Your task to perform on an android device: Search for the best-rated coffee table on Crate & Barrel Image 0: 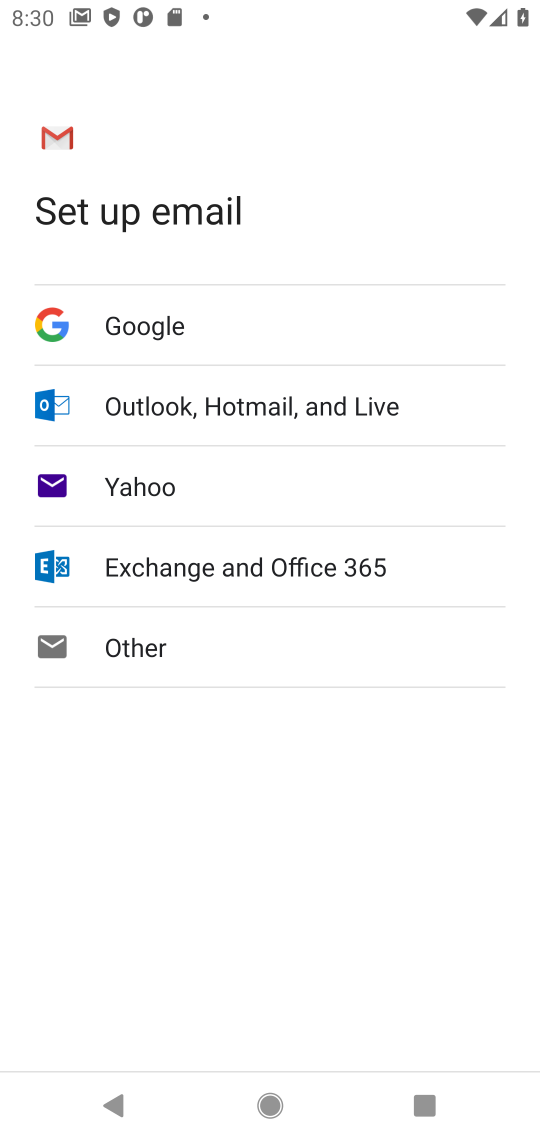
Step 0: press home button
Your task to perform on an android device: Search for the best-rated coffee table on Crate & Barrel Image 1: 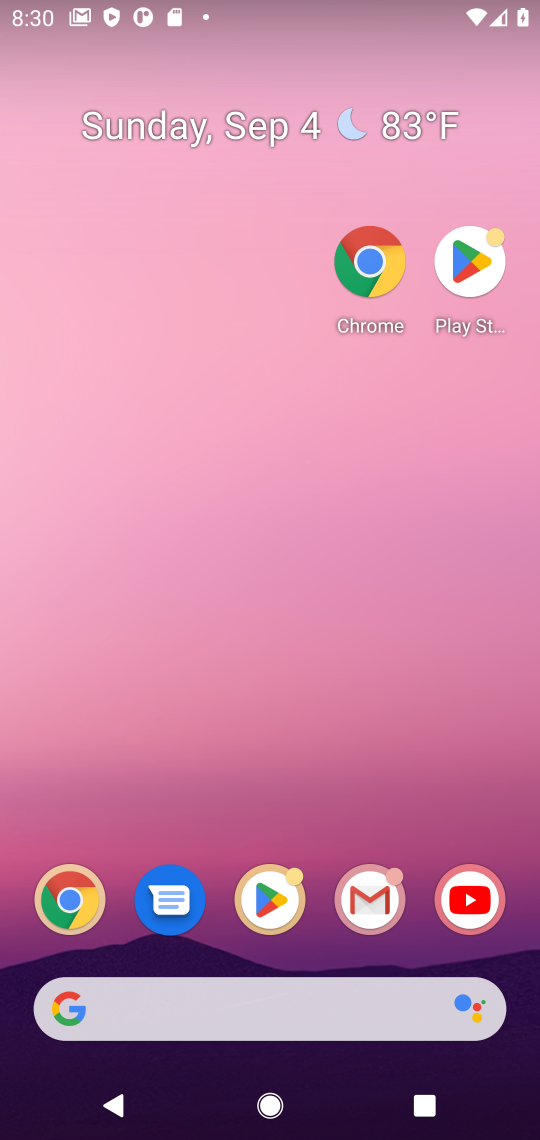
Step 1: click (91, 911)
Your task to perform on an android device: Search for the best-rated coffee table on Crate & Barrel Image 2: 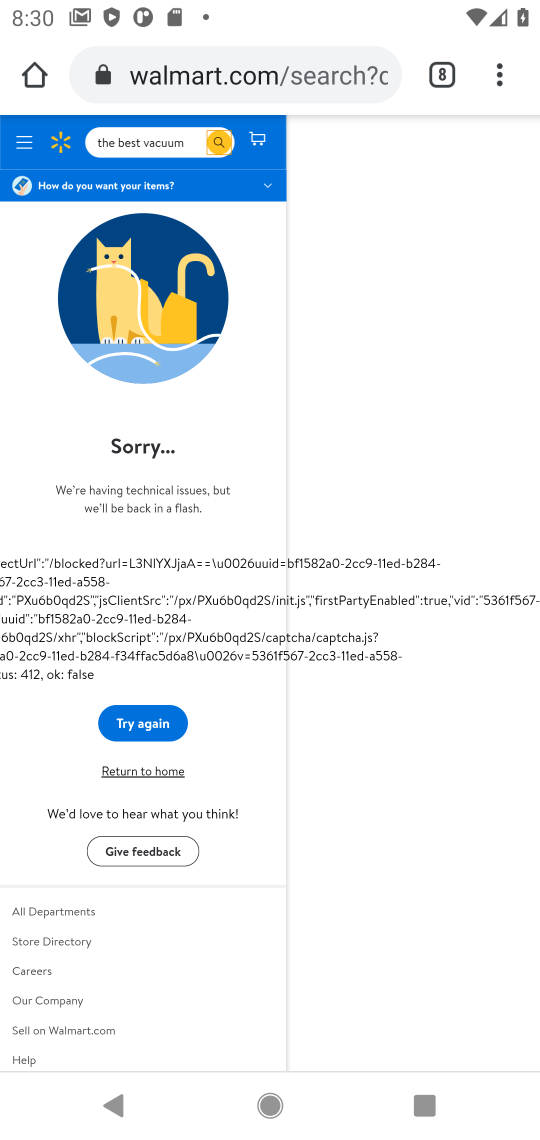
Step 2: click (440, 63)
Your task to perform on an android device: Search for the best-rated coffee table on Crate & Barrel Image 3: 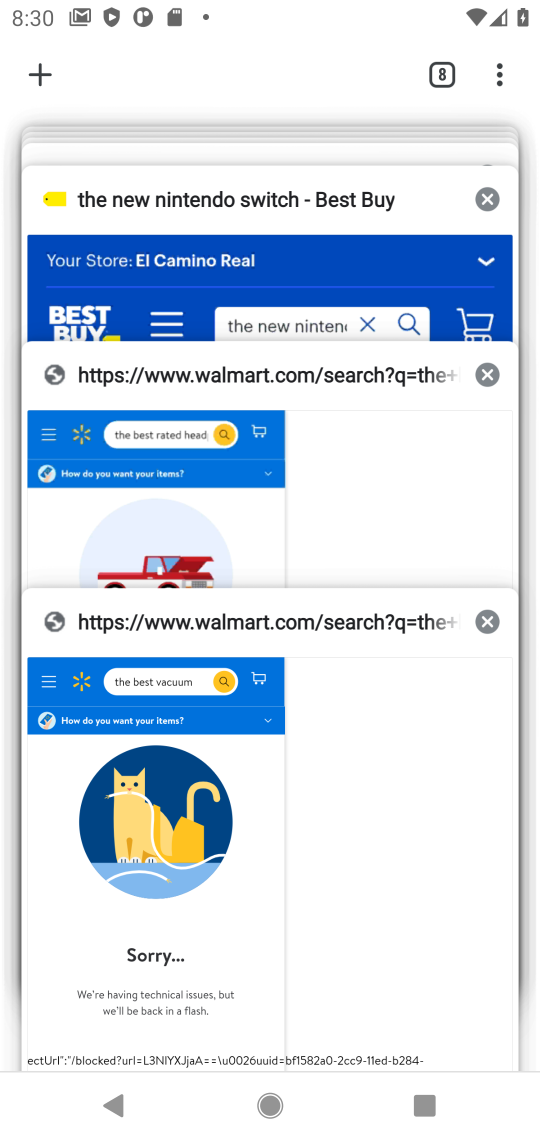
Step 3: click (42, 72)
Your task to perform on an android device: Search for the best-rated coffee table on Crate & Barrel Image 4: 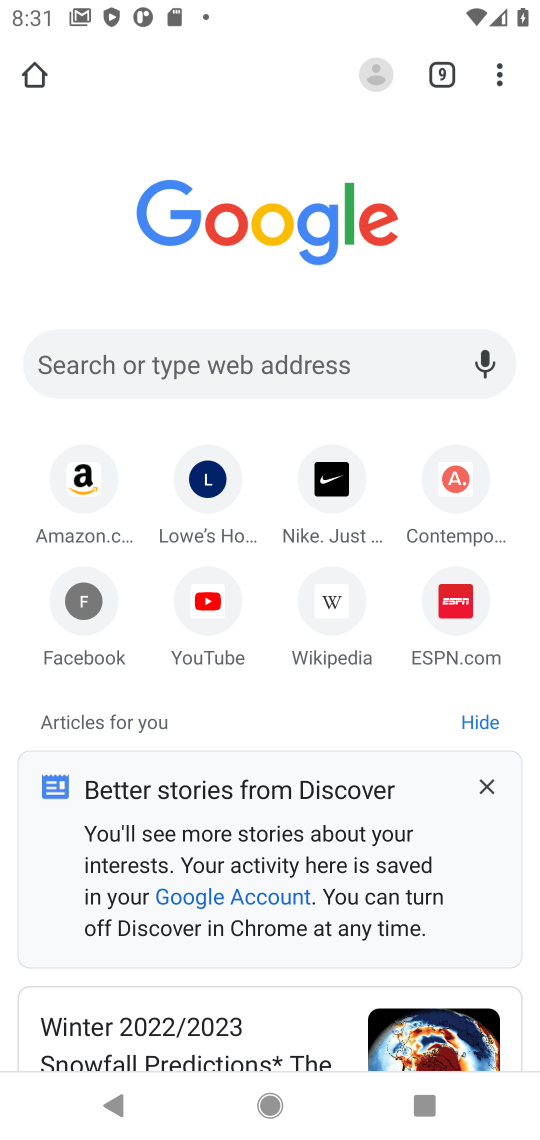
Step 4: click (354, 346)
Your task to perform on an android device: Search for the best-rated coffee table on Crate & Barrel Image 5: 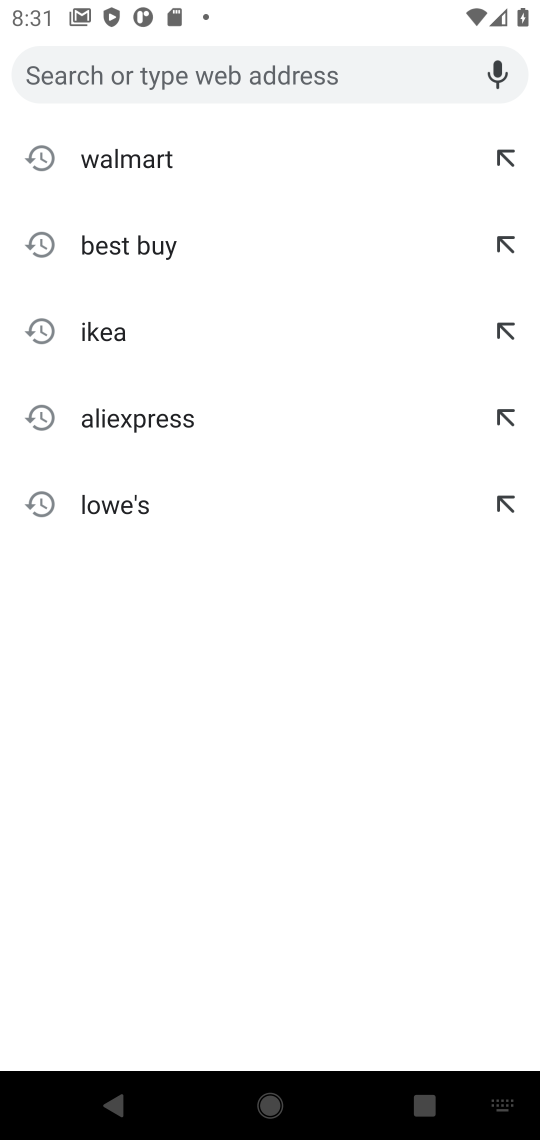
Step 5: type "Crate & Barre"
Your task to perform on an android device: Search for the best-rated coffee table on Crate & Barrel Image 6: 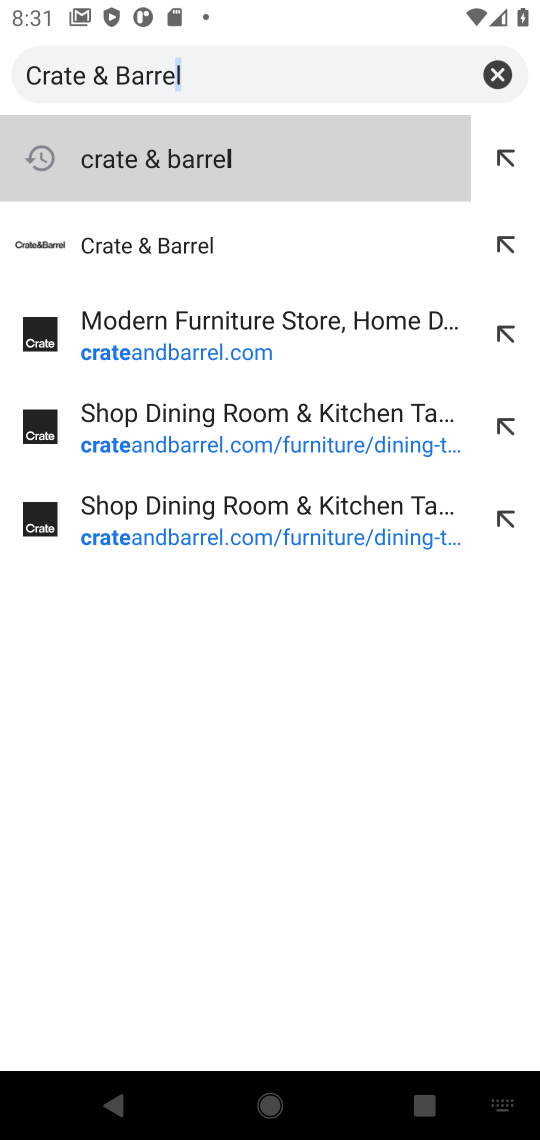
Step 6: click (257, 138)
Your task to perform on an android device: Search for the best-rated coffee table on Crate & Barrel Image 7: 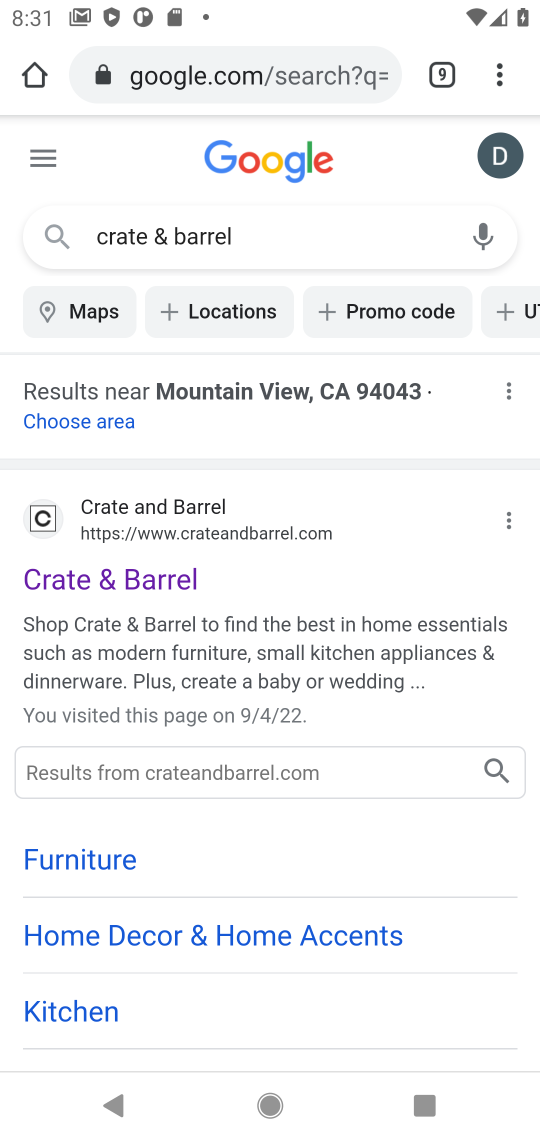
Step 7: click (123, 583)
Your task to perform on an android device: Search for the best-rated coffee table on Crate & Barrel Image 8: 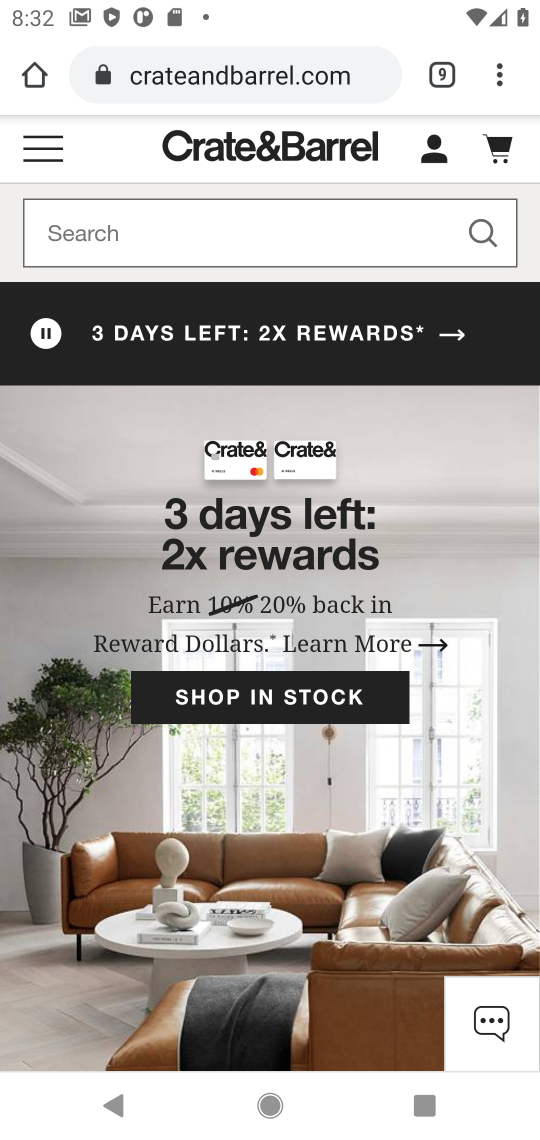
Step 8: click (236, 252)
Your task to perform on an android device: Search for the best-rated coffee table on Crate & Barrel Image 9: 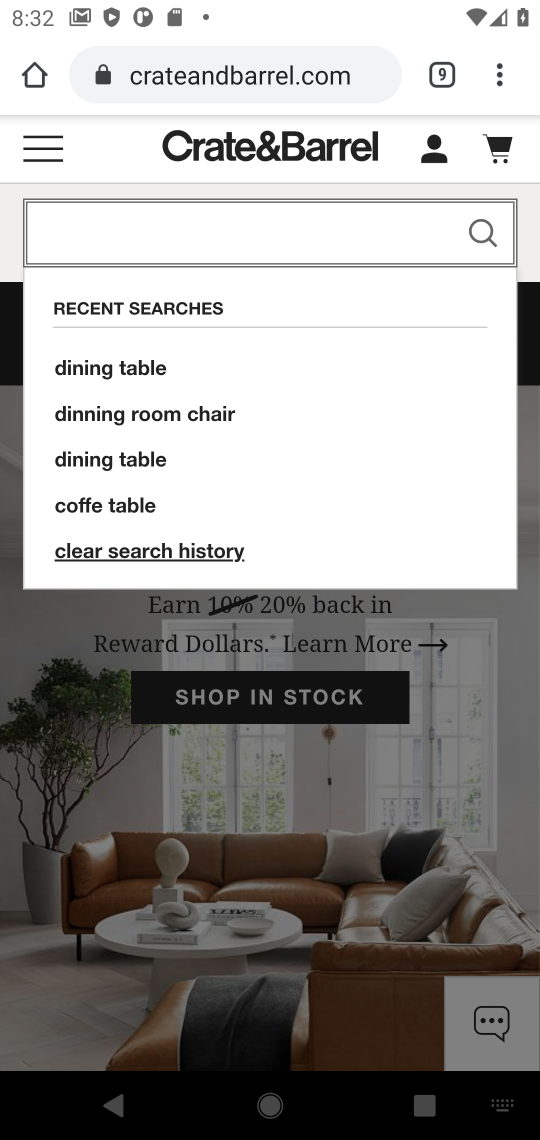
Step 9: click (115, 508)
Your task to perform on an android device: Search for the best-rated coffee table on Crate & Barrel Image 10: 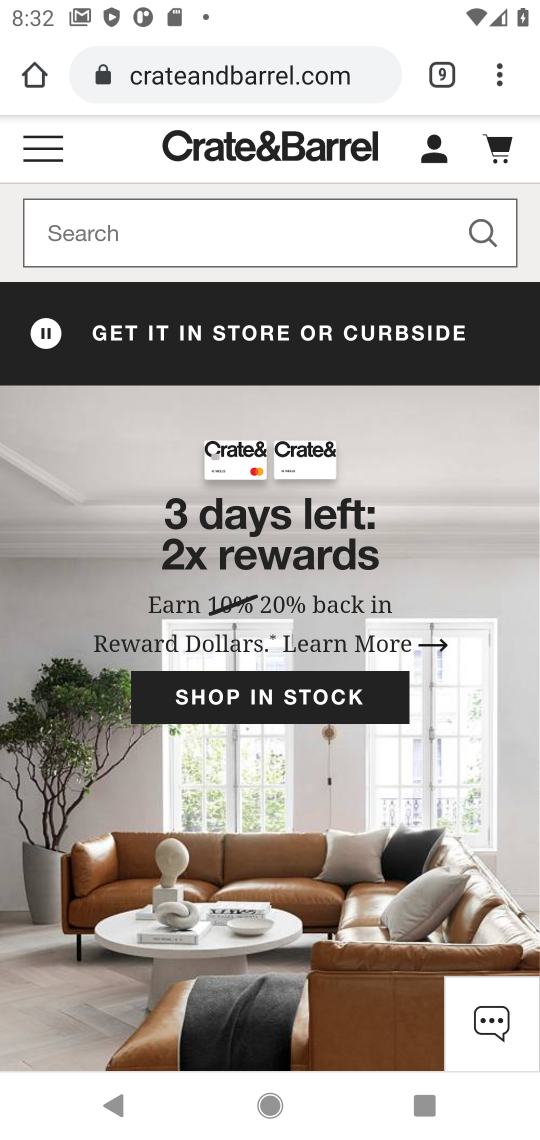
Step 10: click (278, 222)
Your task to perform on an android device: Search for the best-rated coffee table on Crate & Barrel Image 11: 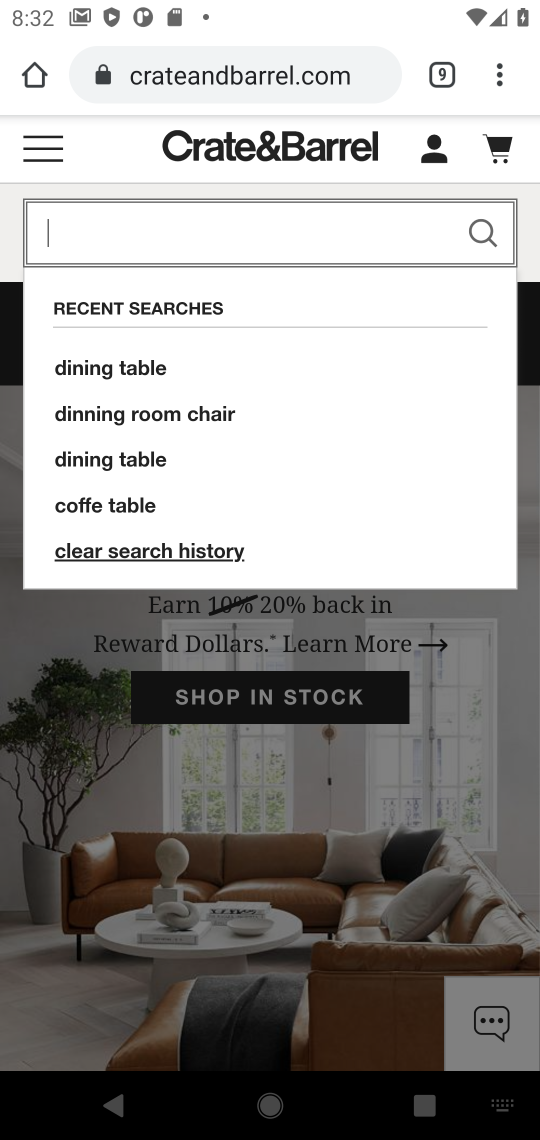
Step 11: click (104, 490)
Your task to perform on an android device: Search for the best-rated coffee table on Crate & Barrel Image 12: 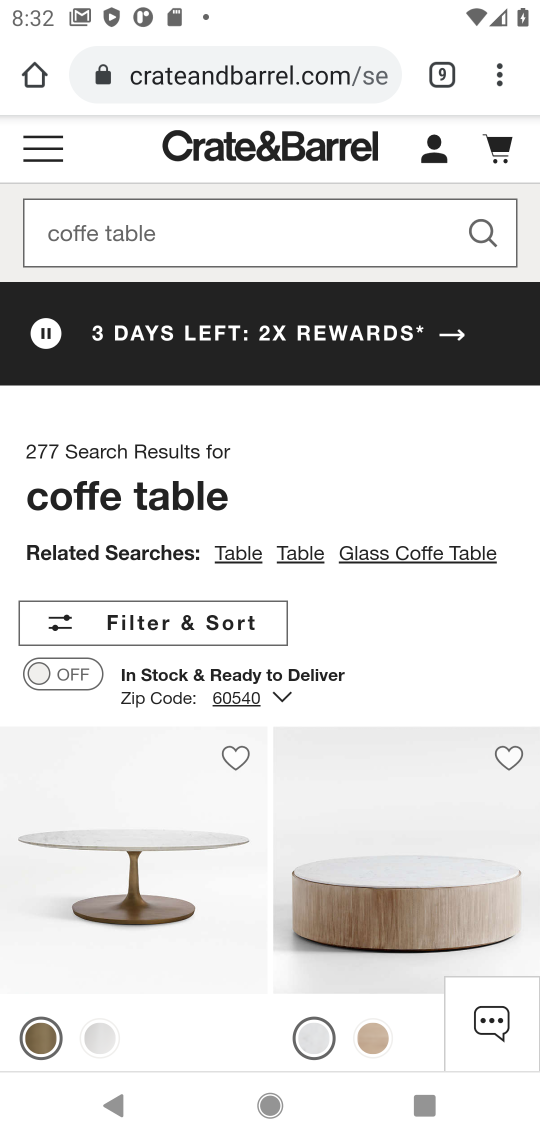
Step 12: drag from (358, 927) to (305, 551)
Your task to perform on an android device: Search for the best-rated coffee table on Crate & Barrel Image 13: 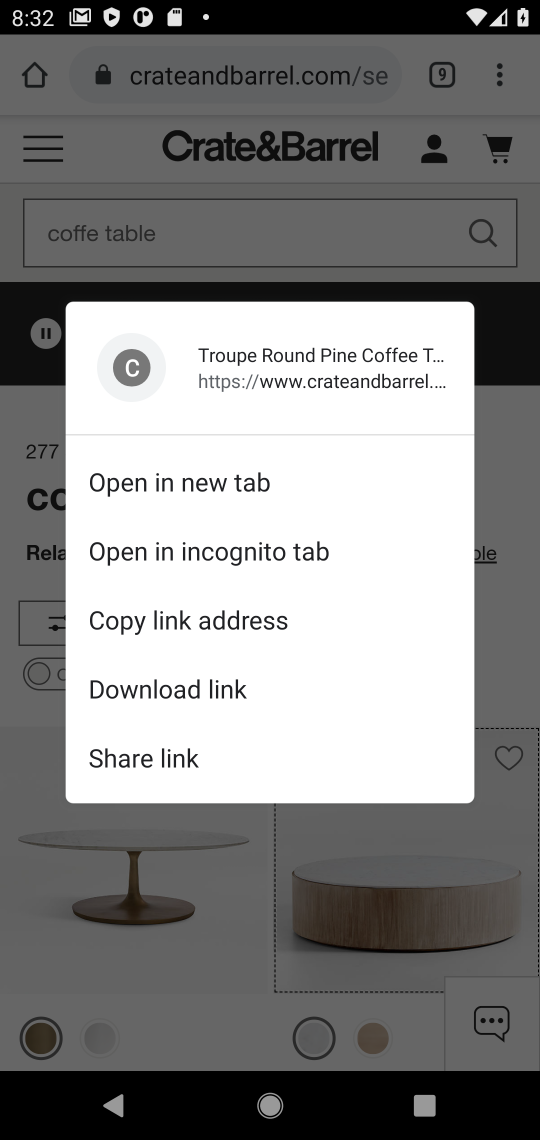
Step 13: click (512, 653)
Your task to perform on an android device: Search for the best-rated coffee table on Crate & Barrel Image 14: 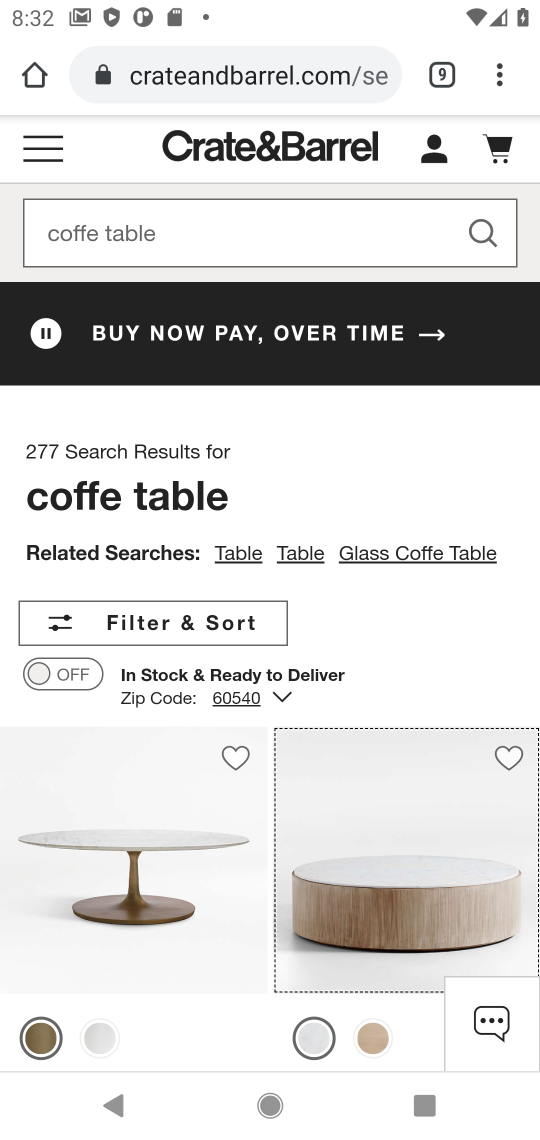
Step 14: click (48, 633)
Your task to perform on an android device: Search for the best-rated coffee table on Crate & Barrel Image 15: 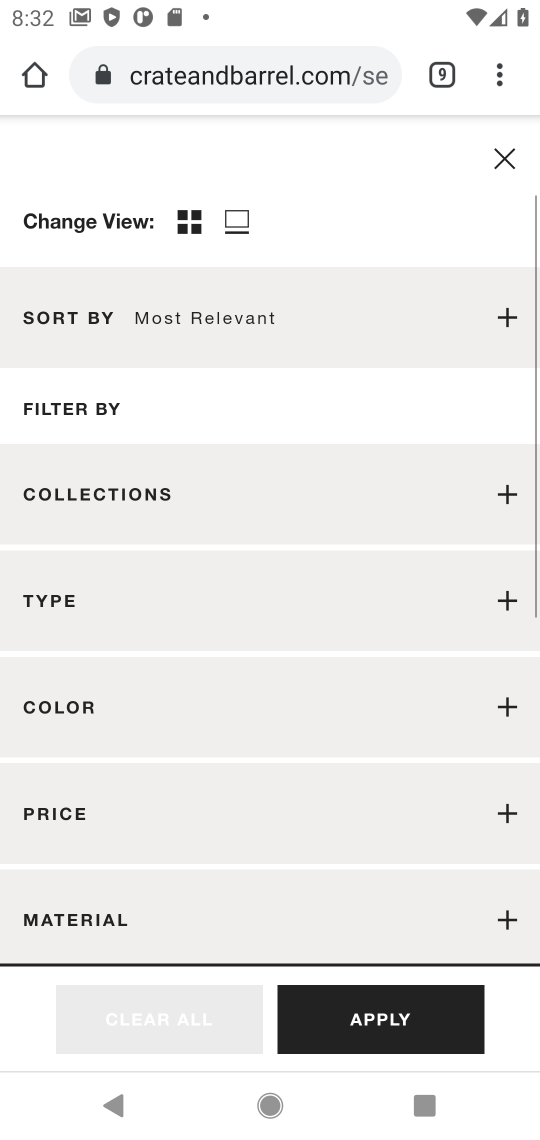
Step 15: drag from (122, 874) to (174, 354)
Your task to perform on an android device: Search for the best-rated coffee table on Crate & Barrel Image 16: 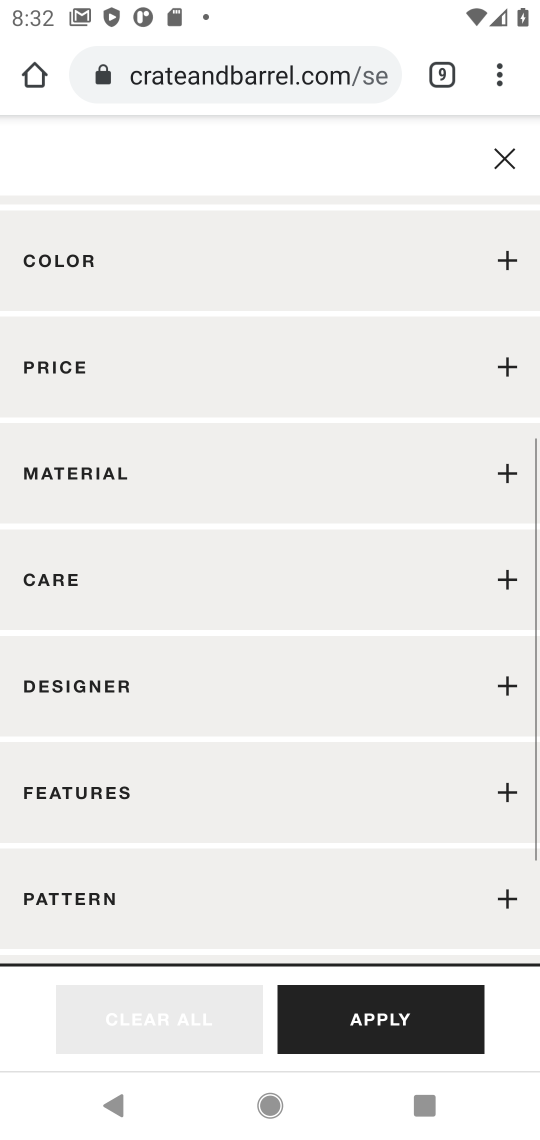
Step 16: drag from (151, 899) to (144, 367)
Your task to perform on an android device: Search for the best-rated coffee table on Crate & Barrel Image 17: 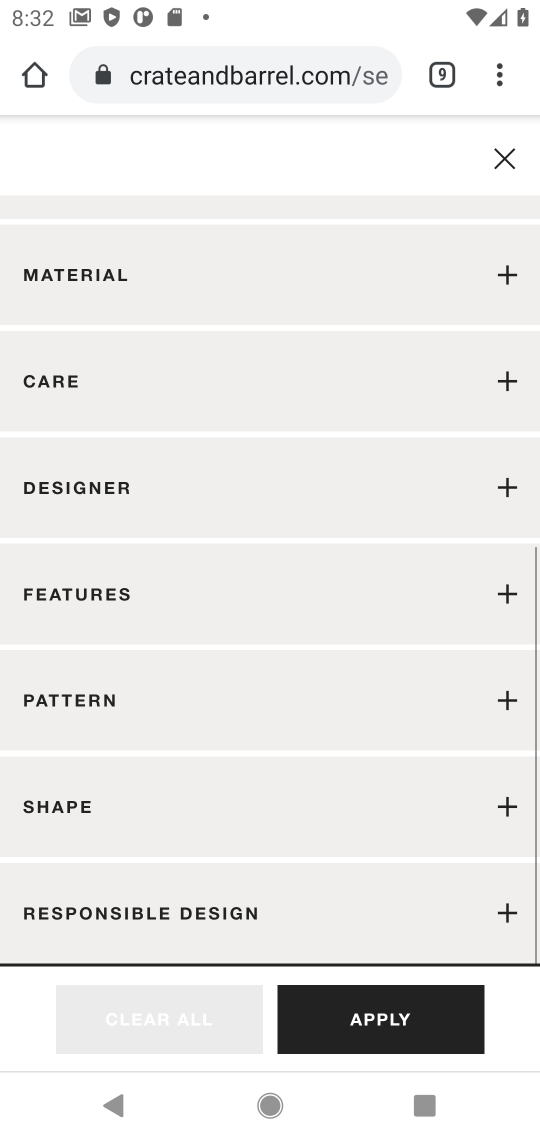
Step 17: drag from (158, 746) to (207, 321)
Your task to perform on an android device: Search for the best-rated coffee table on Crate & Barrel Image 18: 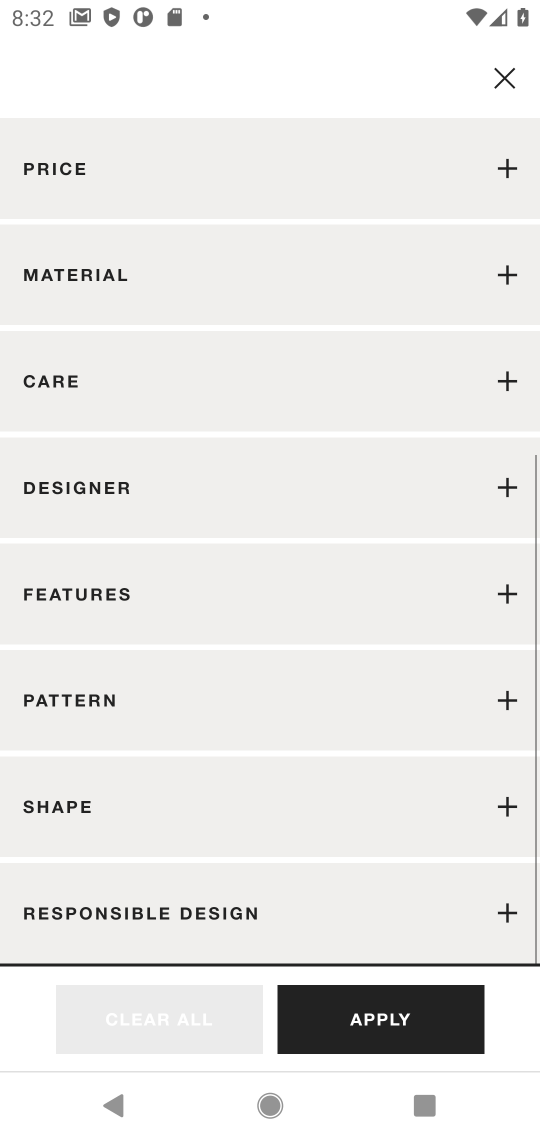
Step 18: drag from (236, 425) to (241, 782)
Your task to perform on an android device: Search for the best-rated coffee table on Crate & Barrel Image 19: 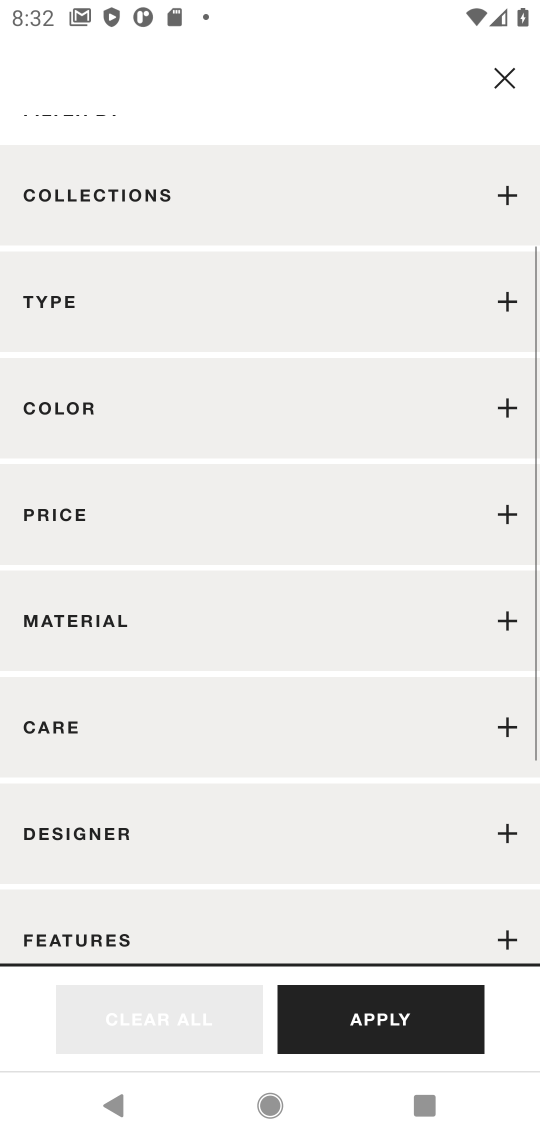
Step 19: click (498, 70)
Your task to perform on an android device: Search for the best-rated coffee table on Crate & Barrel Image 20: 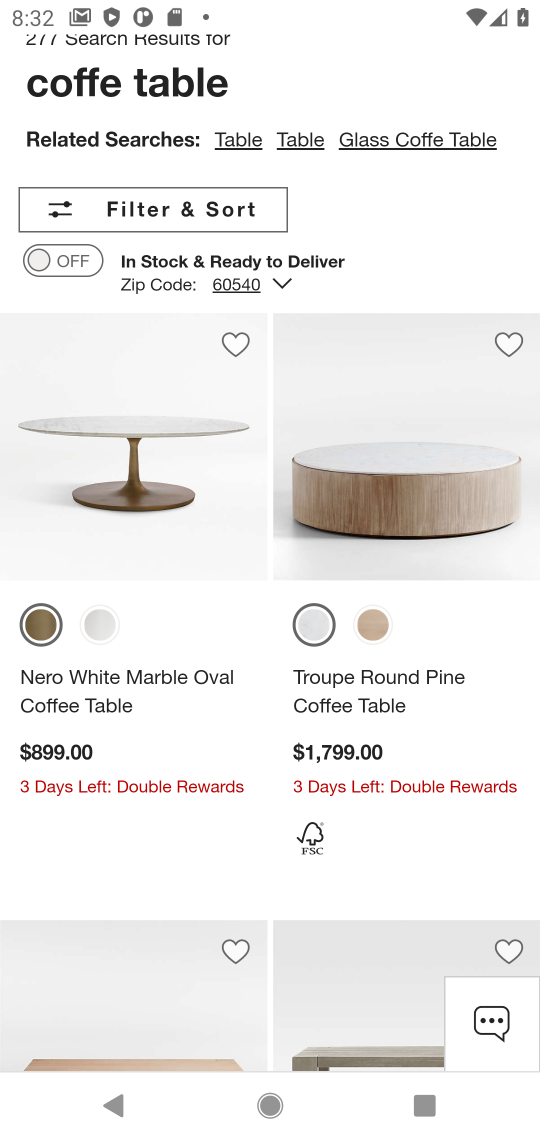
Step 20: task complete